Your task to perform on an android device: Go to internet settings Image 0: 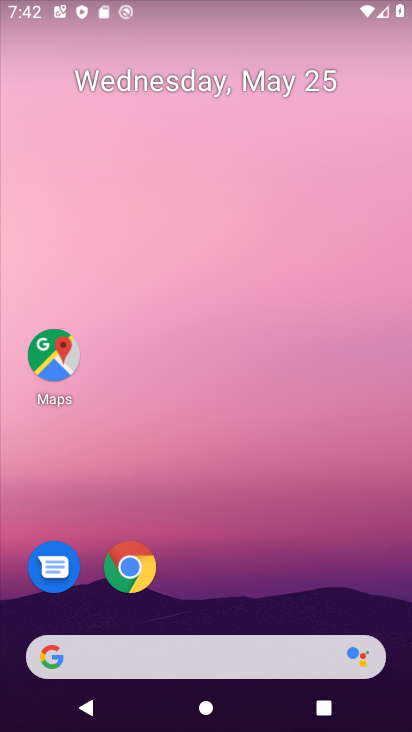
Step 0: drag from (295, 594) to (332, 103)
Your task to perform on an android device: Go to internet settings Image 1: 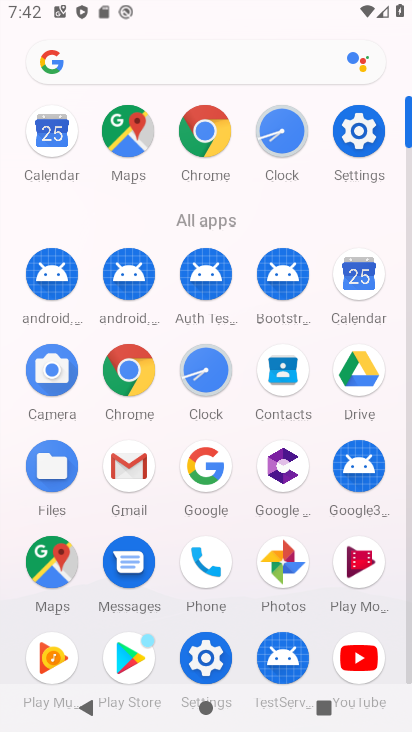
Step 1: click (361, 129)
Your task to perform on an android device: Go to internet settings Image 2: 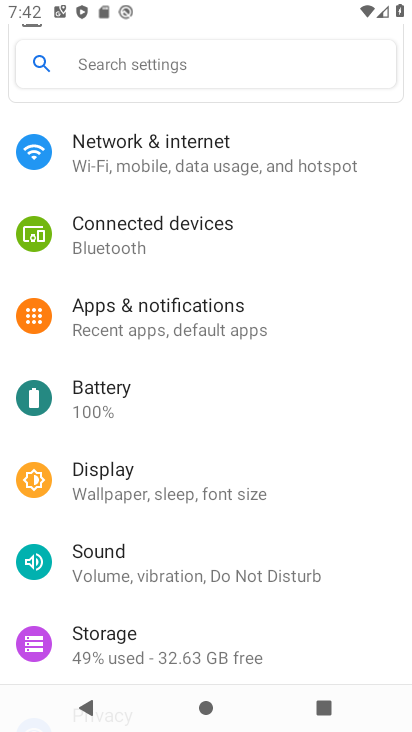
Step 2: click (216, 147)
Your task to perform on an android device: Go to internet settings Image 3: 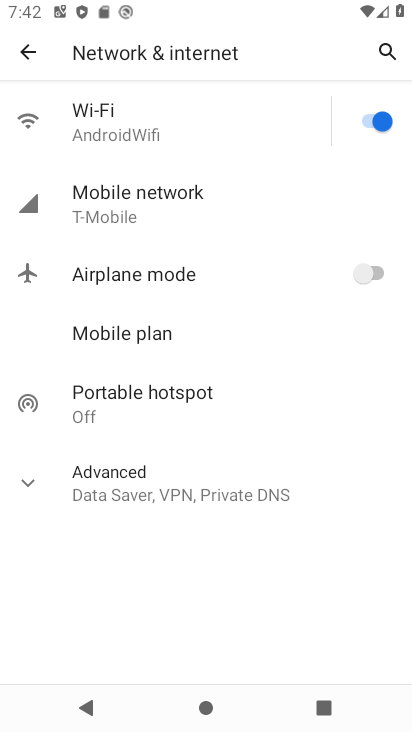
Step 3: task complete